Your task to perform on an android device: change the clock display to show seconds Image 0: 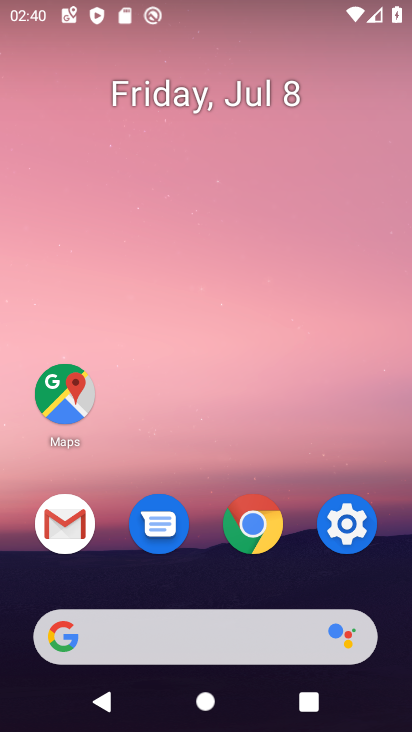
Step 0: drag from (231, 669) to (274, 361)
Your task to perform on an android device: change the clock display to show seconds Image 1: 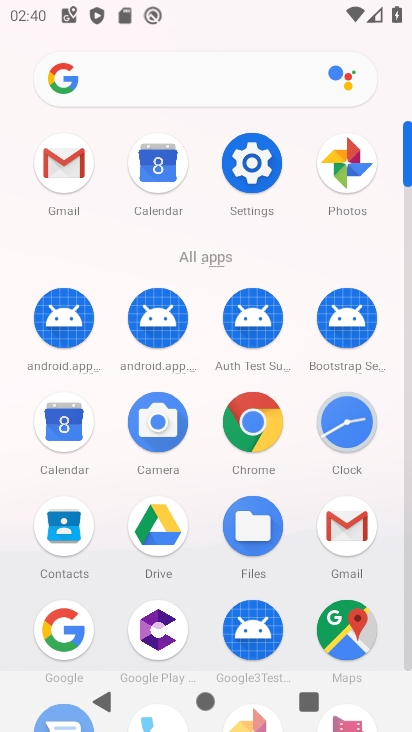
Step 1: click (340, 417)
Your task to perform on an android device: change the clock display to show seconds Image 2: 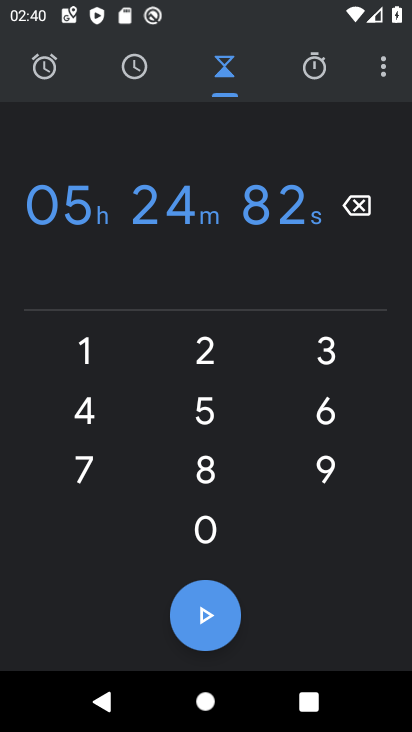
Step 2: click (381, 61)
Your task to perform on an android device: change the clock display to show seconds Image 3: 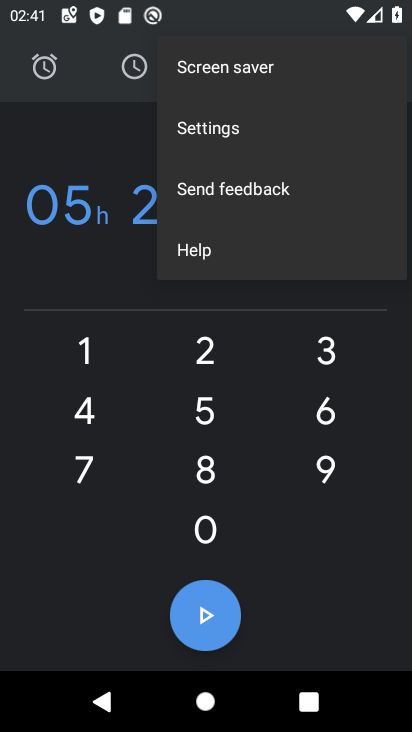
Step 3: click (247, 125)
Your task to perform on an android device: change the clock display to show seconds Image 4: 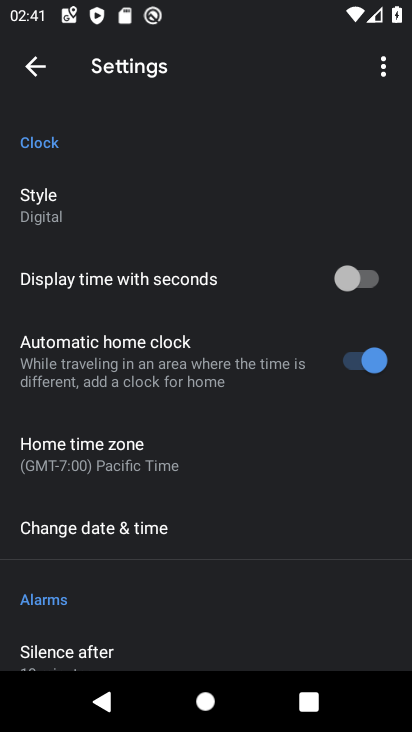
Step 4: click (349, 278)
Your task to perform on an android device: change the clock display to show seconds Image 5: 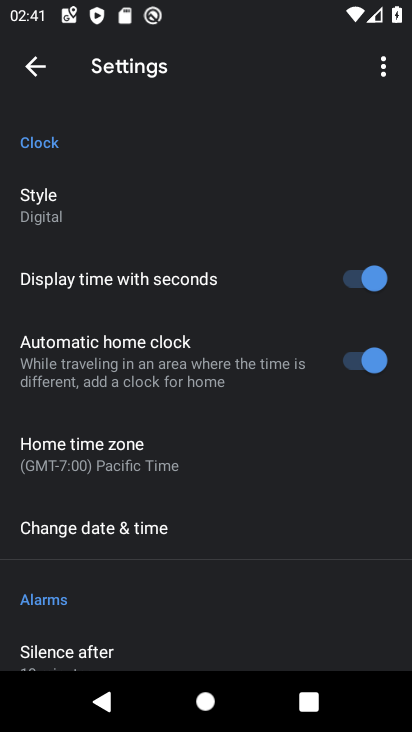
Step 5: task complete